Your task to perform on an android device: turn off location Image 0: 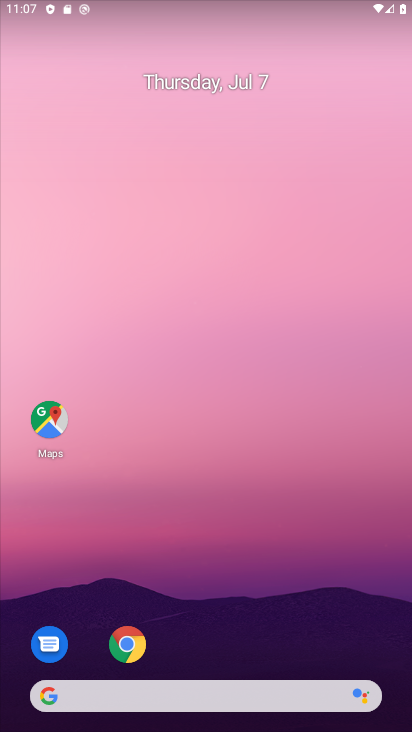
Step 0: drag from (179, 667) to (271, 365)
Your task to perform on an android device: turn off location Image 1: 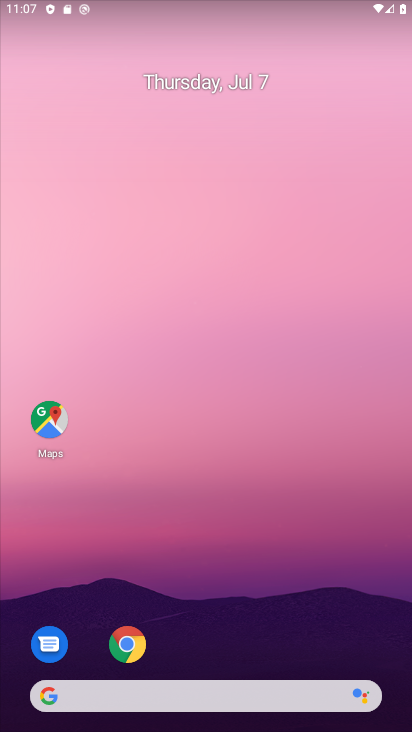
Step 1: drag from (174, 641) to (239, 167)
Your task to perform on an android device: turn off location Image 2: 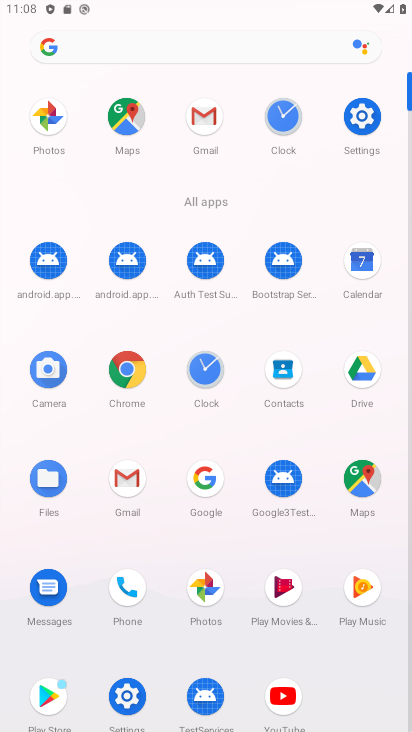
Step 2: click (349, 488)
Your task to perform on an android device: turn off location Image 3: 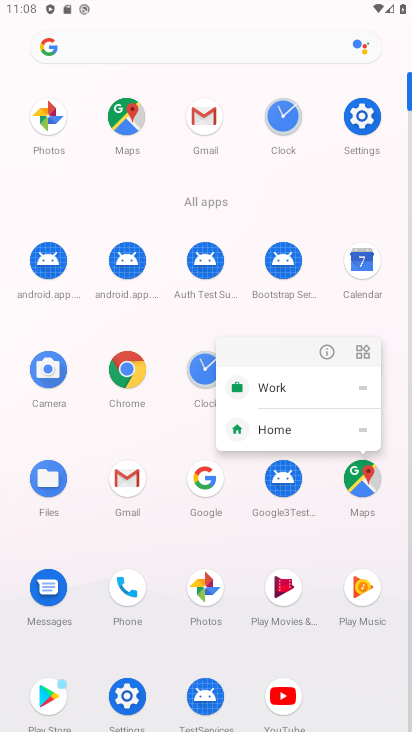
Step 3: click (363, 113)
Your task to perform on an android device: turn off location Image 4: 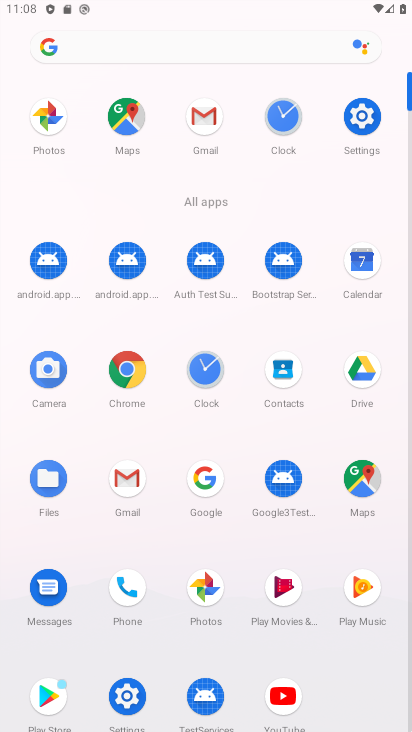
Step 4: click (363, 113)
Your task to perform on an android device: turn off location Image 5: 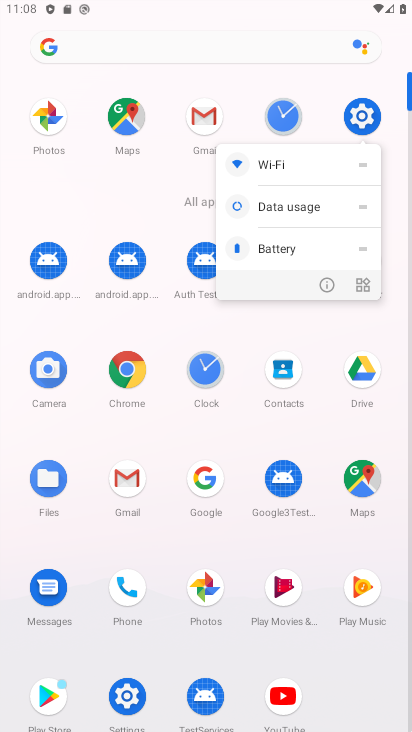
Step 5: click (331, 283)
Your task to perform on an android device: turn off location Image 6: 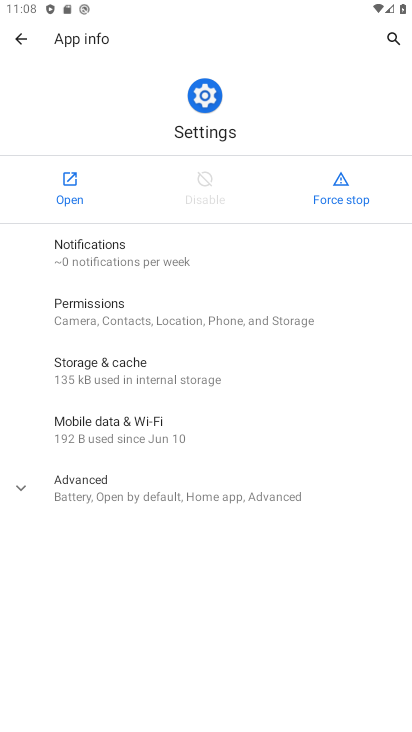
Step 6: click (75, 179)
Your task to perform on an android device: turn off location Image 7: 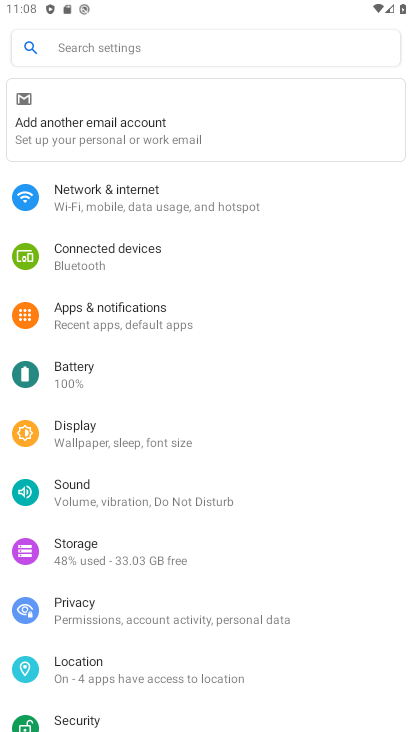
Step 7: click (105, 670)
Your task to perform on an android device: turn off location Image 8: 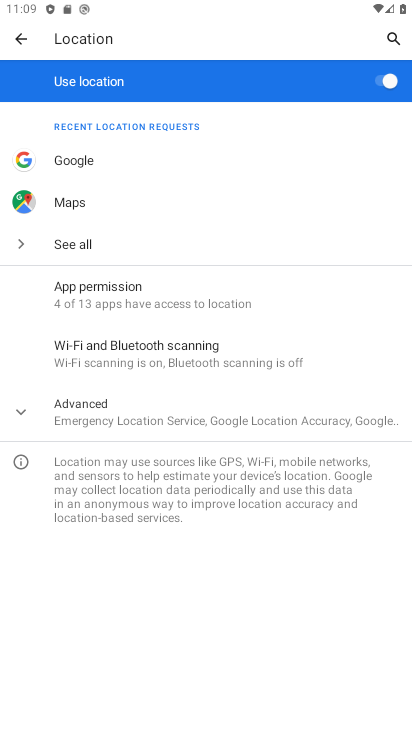
Step 8: click (101, 412)
Your task to perform on an android device: turn off location Image 9: 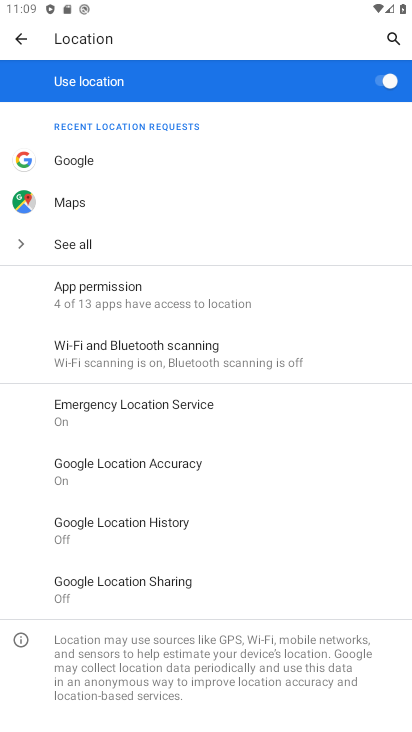
Step 9: click (389, 83)
Your task to perform on an android device: turn off location Image 10: 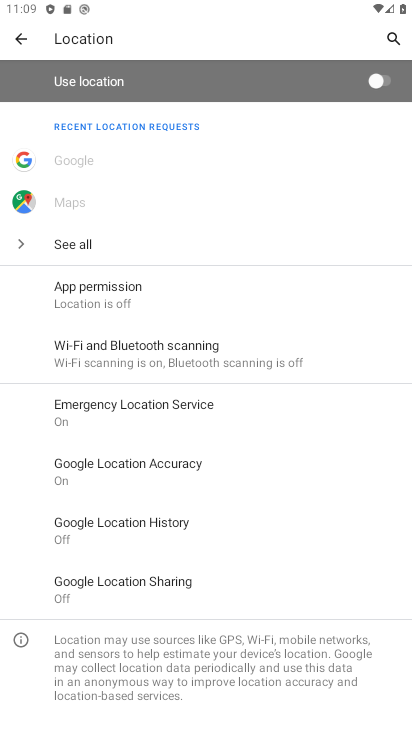
Step 10: task complete